Your task to perform on an android device: toggle data saver in the chrome app Image 0: 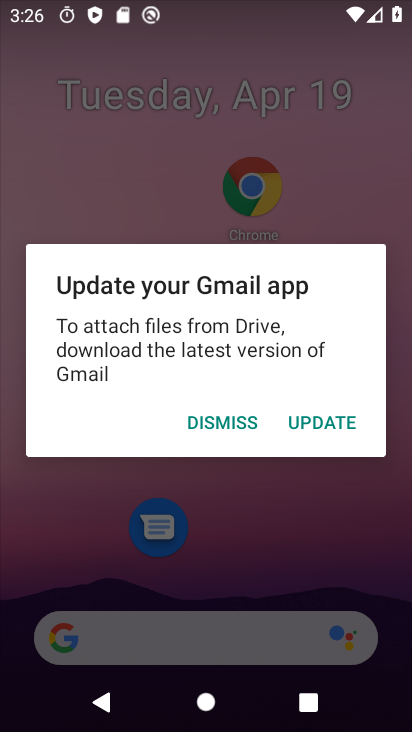
Step 0: press home button
Your task to perform on an android device: toggle data saver in the chrome app Image 1: 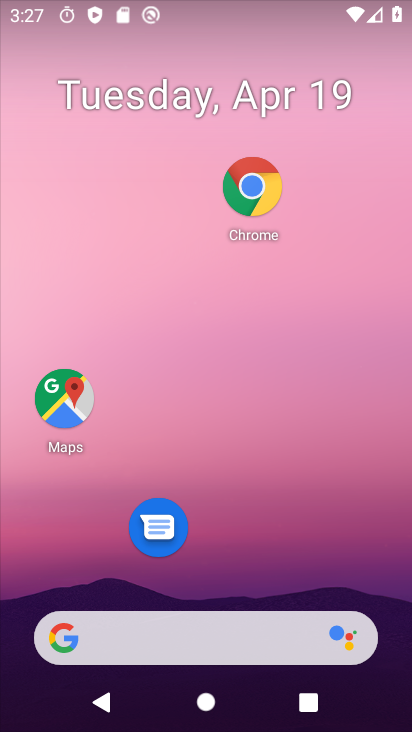
Step 1: click (252, 185)
Your task to perform on an android device: toggle data saver in the chrome app Image 2: 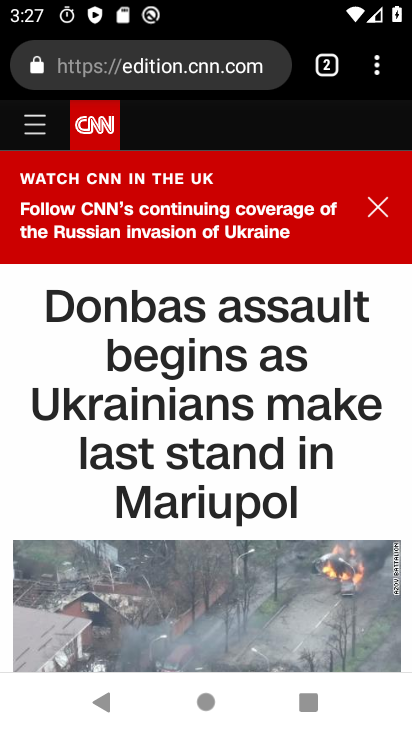
Step 2: click (378, 66)
Your task to perform on an android device: toggle data saver in the chrome app Image 3: 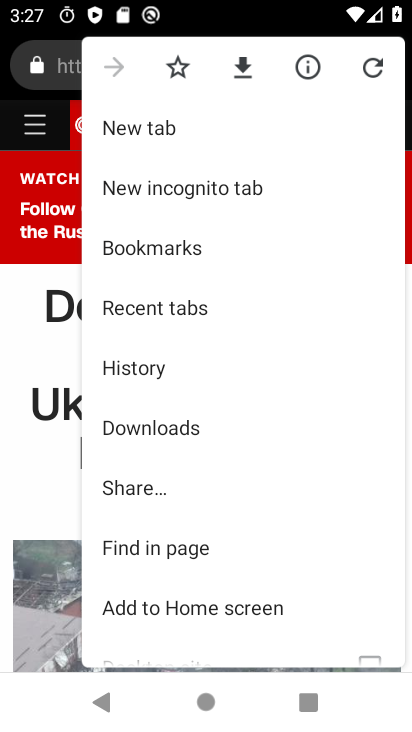
Step 3: drag from (171, 556) to (148, 224)
Your task to perform on an android device: toggle data saver in the chrome app Image 4: 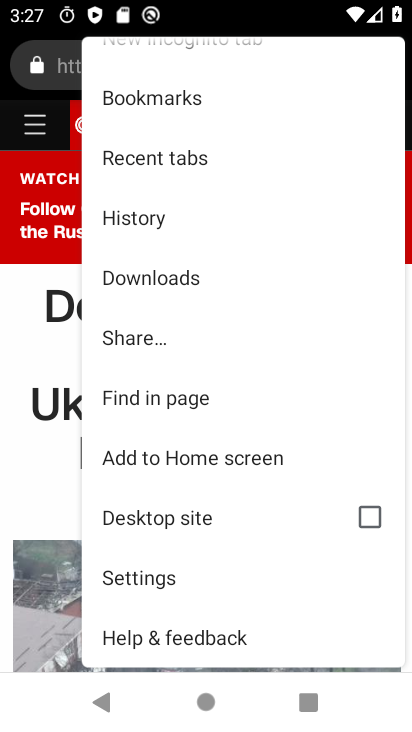
Step 4: click (145, 578)
Your task to perform on an android device: toggle data saver in the chrome app Image 5: 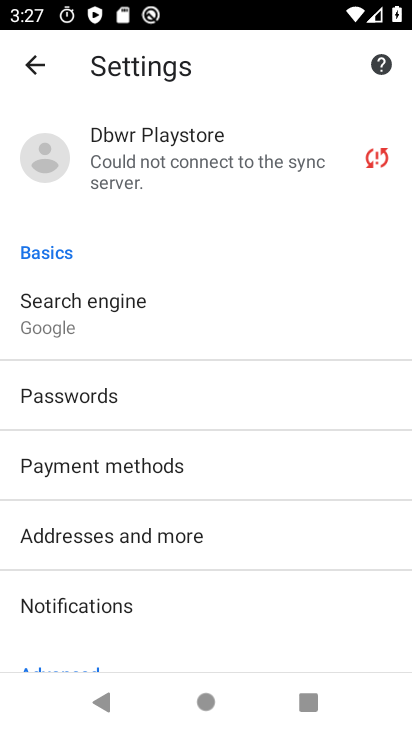
Step 5: drag from (259, 603) to (255, 169)
Your task to perform on an android device: toggle data saver in the chrome app Image 6: 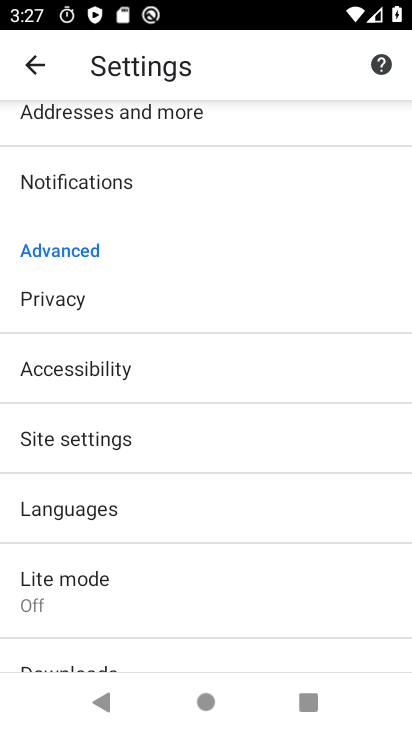
Step 6: click (153, 573)
Your task to perform on an android device: toggle data saver in the chrome app Image 7: 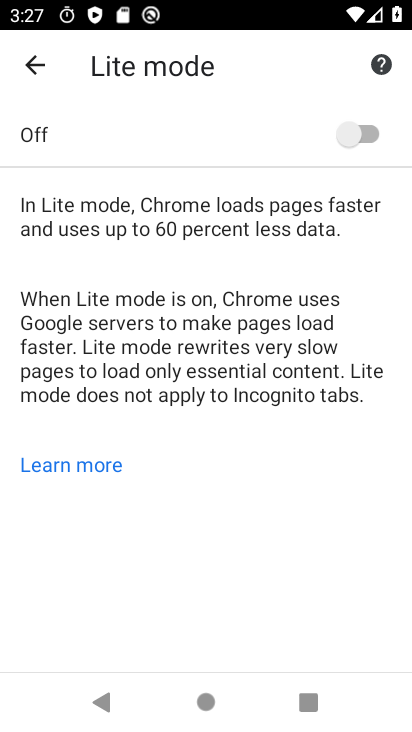
Step 7: click (351, 140)
Your task to perform on an android device: toggle data saver in the chrome app Image 8: 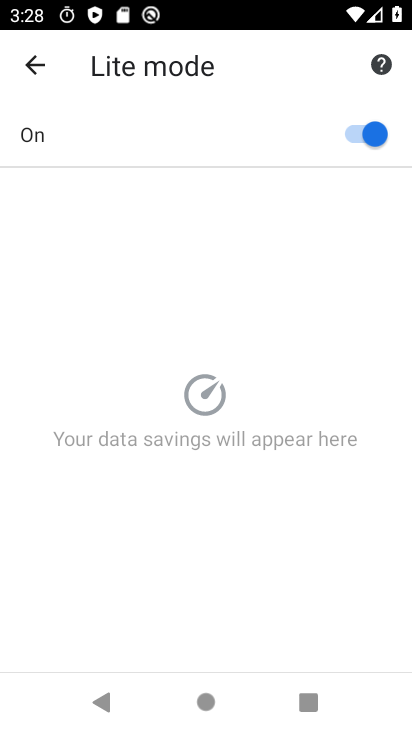
Step 8: task complete